Your task to perform on an android device: Show me productivity apps on the Play Store Image 0: 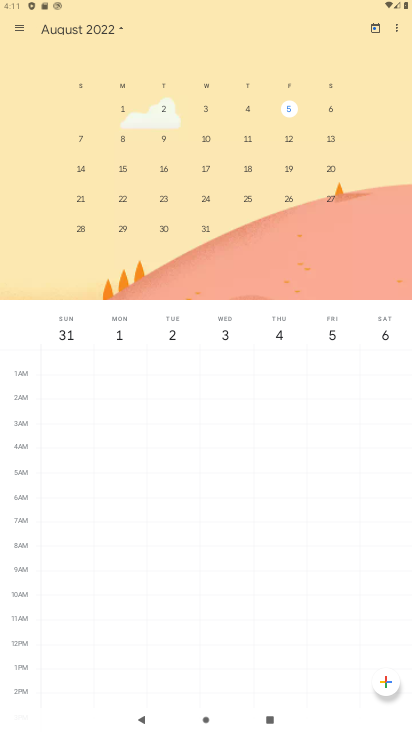
Step 0: press home button
Your task to perform on an android device: Show me productivity apps on the Play Store Image 1: 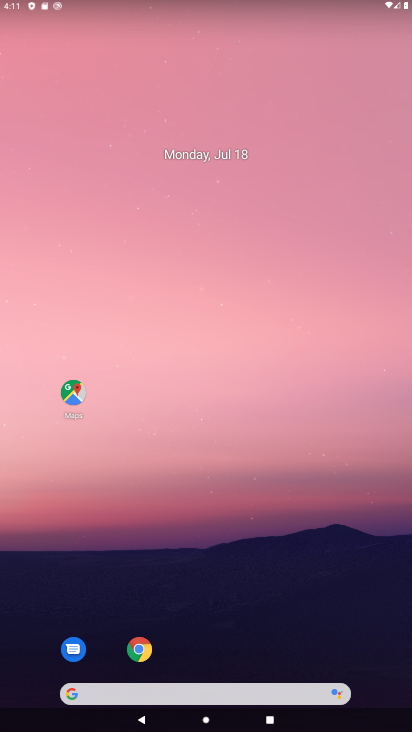
Step 1: drag from (203, 644) to (200, 368)
Your task to perform on an android device: Show me productivity apps on the Play Store Image 2: 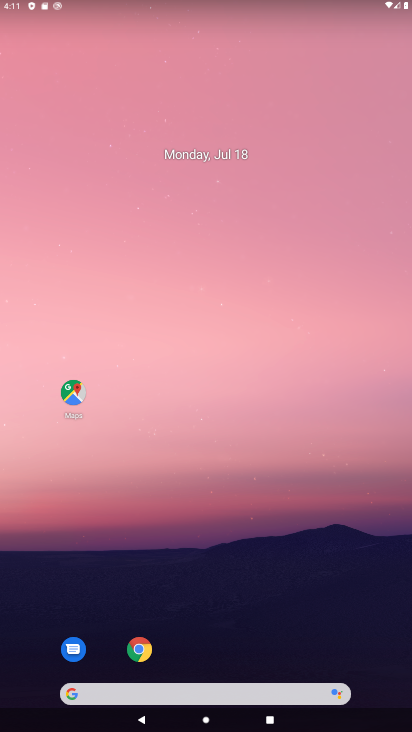
Step 2: drag from (170, 653) to (182, 140)
Your task to perform on an android device: Show me productivity apps on the Play Store Image 3: 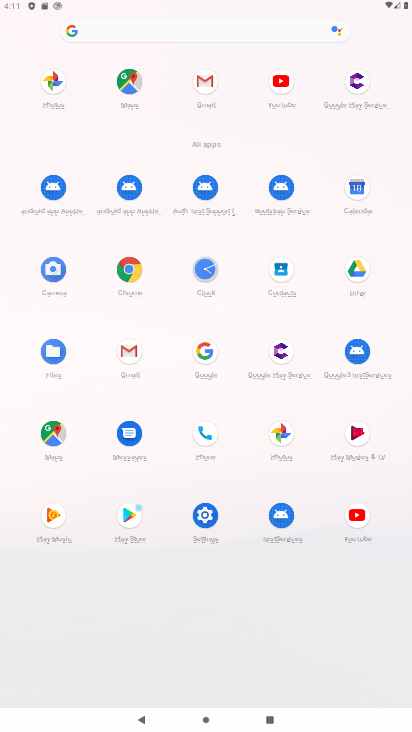
Step 3: click (134, 514)
Your task to perform on an android device: Show me productivity apps on the Play Store Image 4: 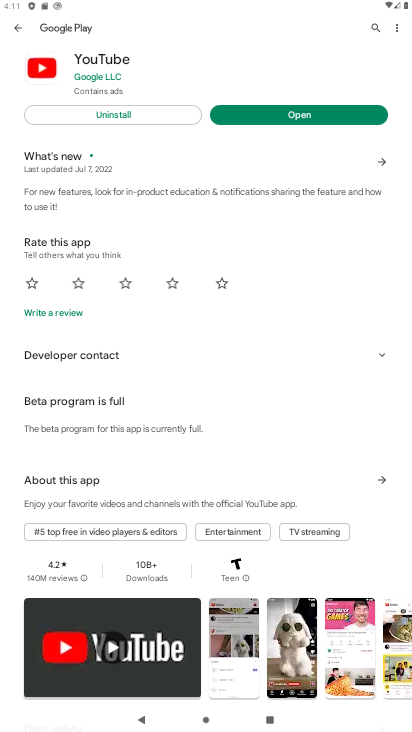
Step 4: click (9, 23)
Your task to perform on an android device: Show me productivity apps on the Play Store Image 5: 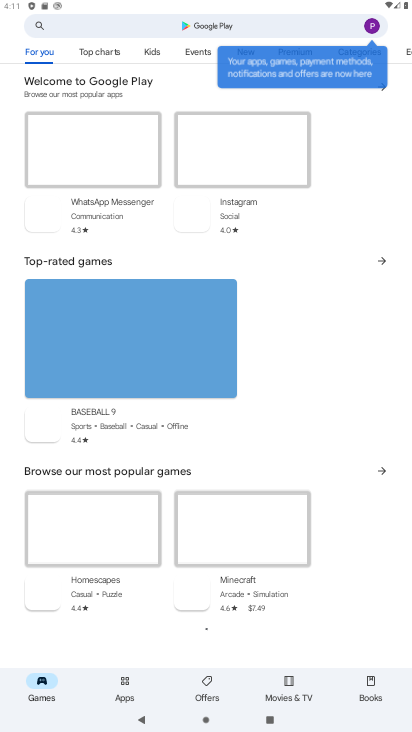
Step 5: click (130, 688)
Your task to perform on an android device: Show me productivity apps on the Play Store Image 6: 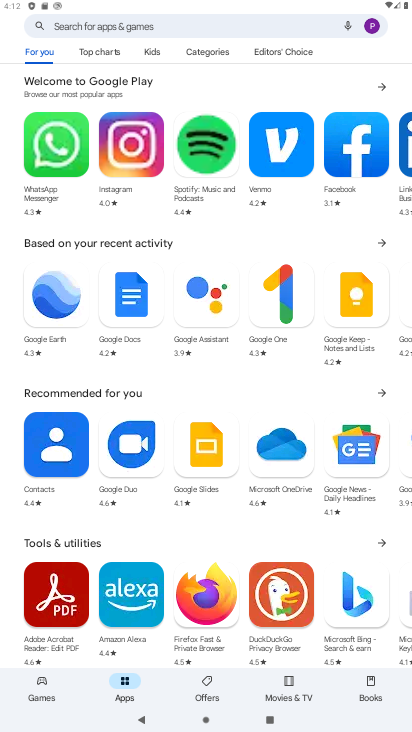
Step 6: click (209, 53)
Your task to perform on an android device: Show me productivity apps on the Play Store Image 7: 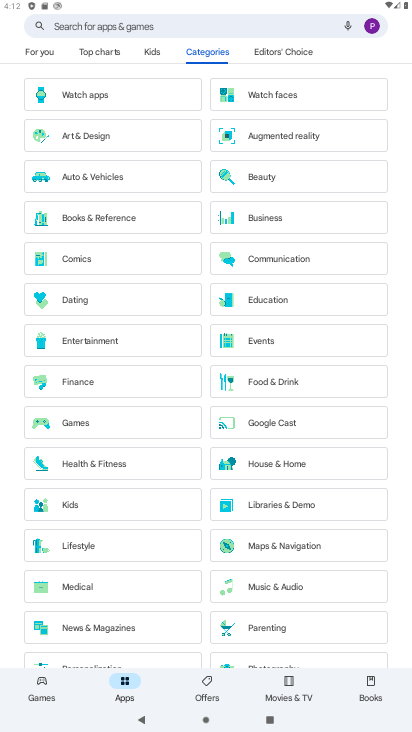
Step 7: drag from (281, 627) to (342, 214)
Your task to perform on an android device: Show me productivity apps on the Play Store Image 8: 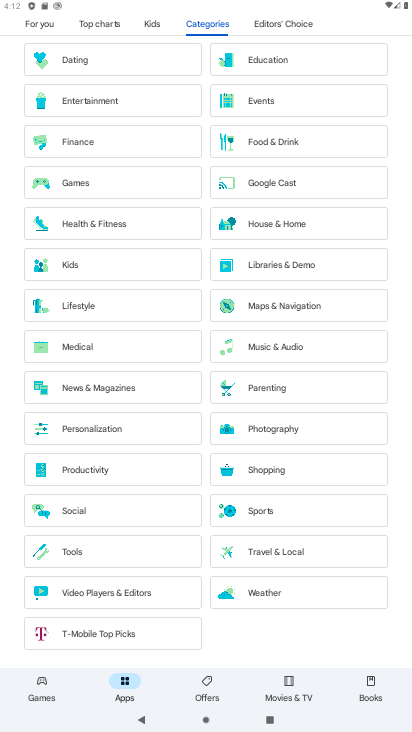
Step 8: click (76, 474)
Your task to perform on an android device: Show me productivity apps on the Play Store Image 9: 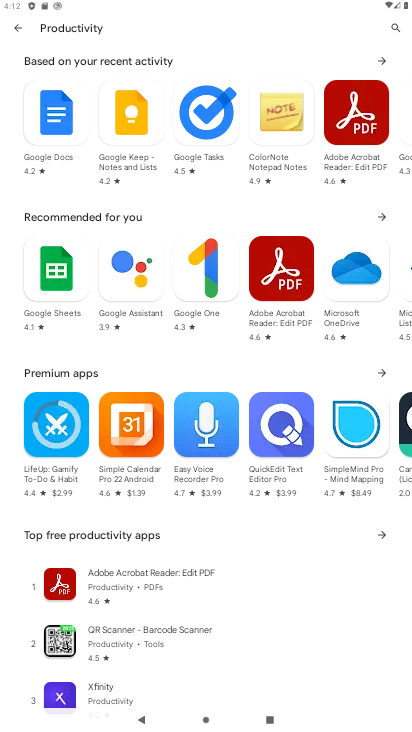
Step 9: task complete